Your task to perform on an android device: Go to Google Image 0: 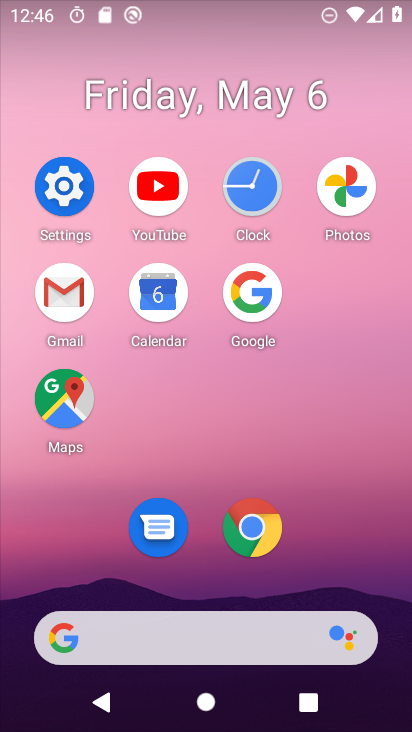
Step 0: click (249, 285)
Your task to perform on an android device: Go to Google Image 1: 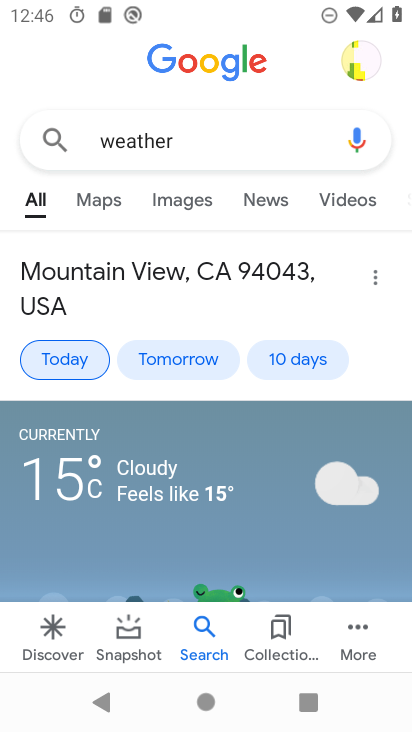
Step 1: task complete